Your task to perform on an android device: add a contact in the contacts app Image 0: 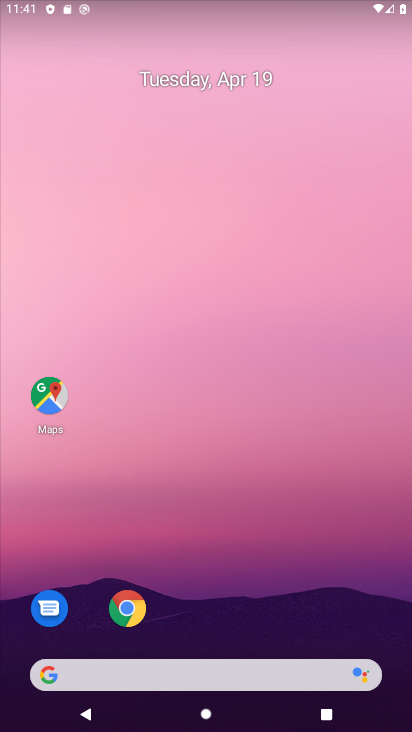
Step 0: drag from (190, 524) to (133, 37)
Your task to perform on an android device: add a contact in the contacts app Image 1: 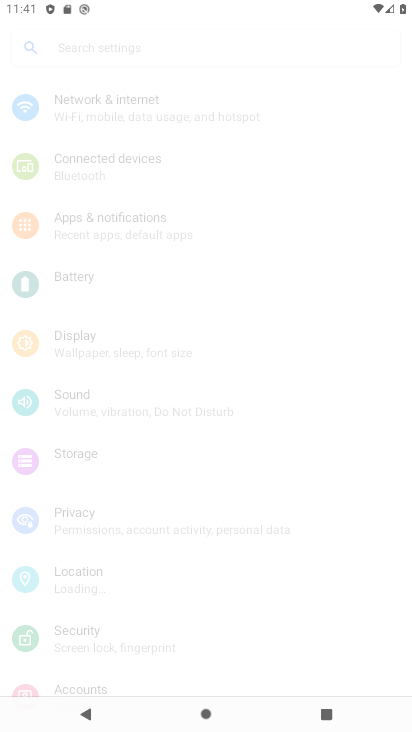
Step 1: press home button
Your task to perform on an android device: add a contact in the contacts app Image 2: 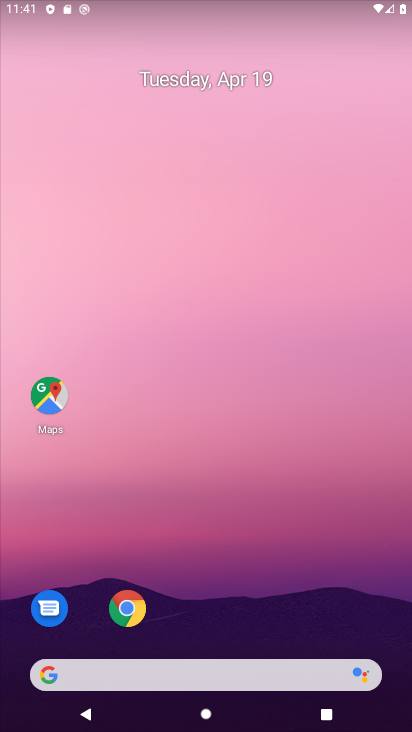
Step 2: drag from (200, 592) to (96, 16)
Your task to perform on an android device: add a contact in the contacts app Image 3: 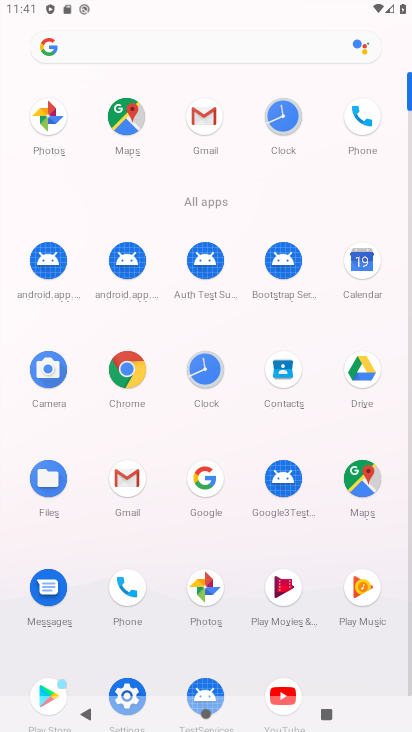
Step 3: click (351, 139)
Your task to perform on an android device: add a contact in the contacts app Image 4: 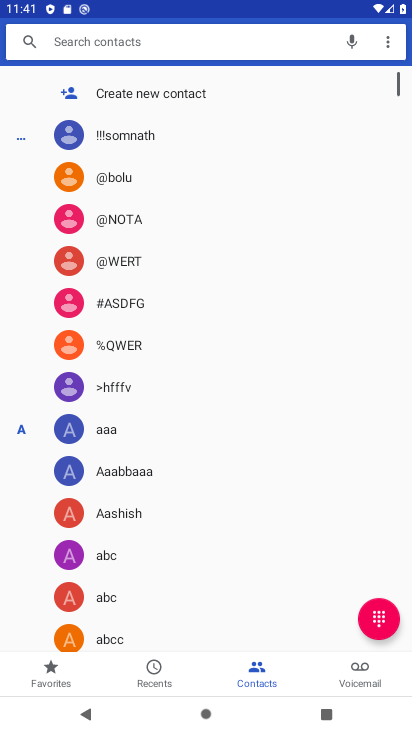
Step 4: click (254, 676)
Your task to perform on an android device: add a contact in the contacts app Image 5: 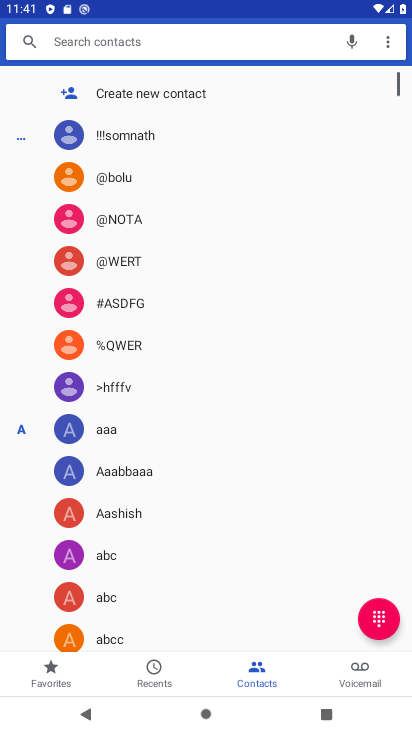
Step 5: click (165, 89)
Your task to perform on an android device: add a contact in the contacts app Image 6: 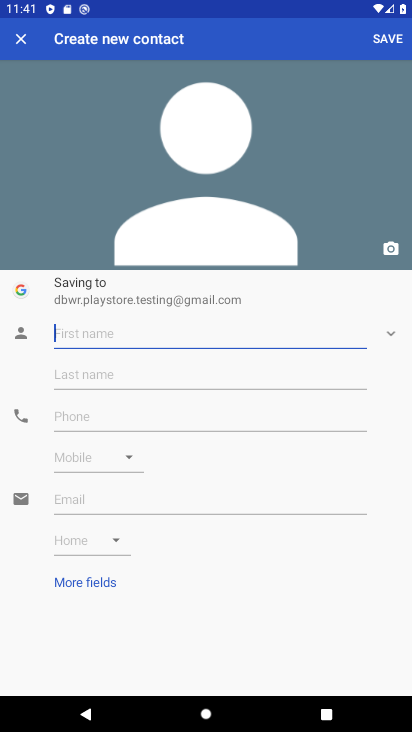
Step 6: type "bhi"
Your task to perform on an android device: add a contact in the contacts app Image 7: 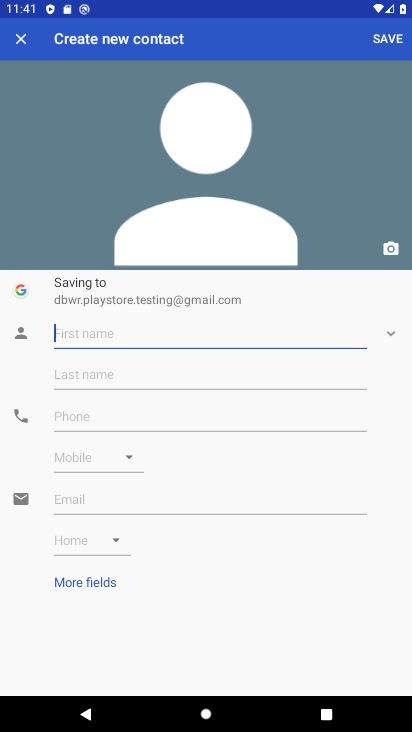
Step 7: click (195, 409)
Your task to perform on an android device: add a contact in the contacts app Image 8: 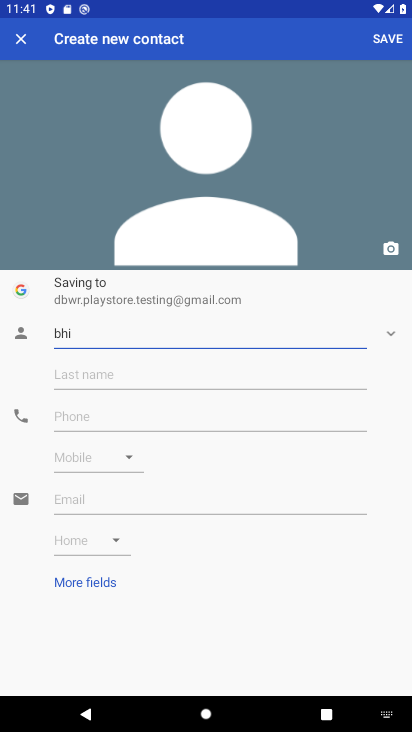
Step 8: type ""
Your task to perform on an android device: add a contact in the contacts app Image 9: 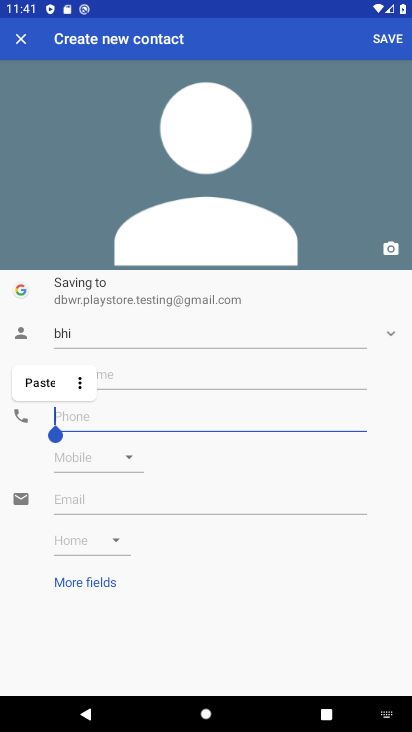
Step 9: type "76543"
Your task to perform on an android device: add a contact in the contacts app Image 10: 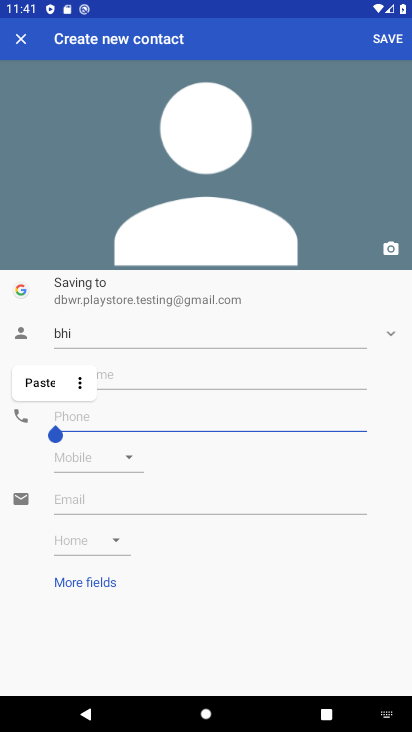
Step 10: click (396, 42)
Your task to perform on an android device: add a contact in the contacts app Image 11: 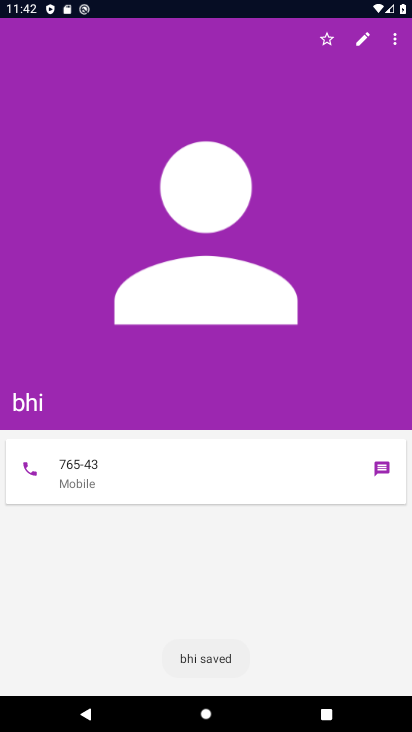
Step 11: task complete